Your task to perform on an android device: turn off javascript in the chrome app Image 0: 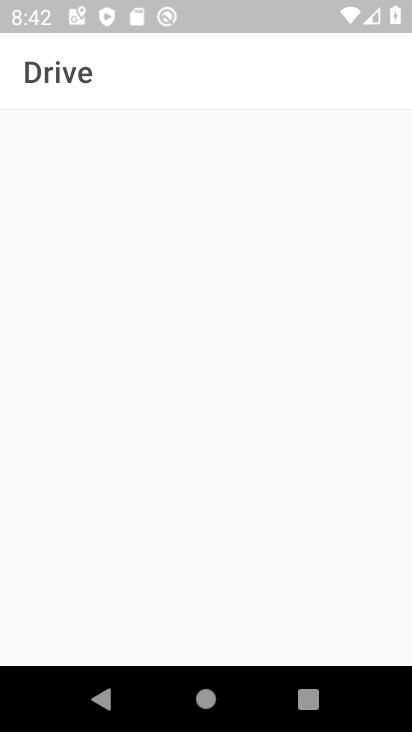
Step 0: press home button
Your task to perform on an android device: turn off javascript in the chrome app Image 1: 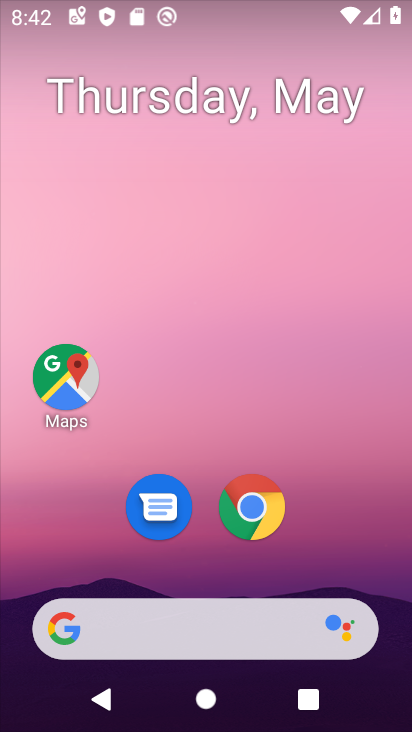
Step 1: drag from (396, 574) to (369, 170)
Your task to perform on an android device: turn off javascript in the chrome app Image 2: 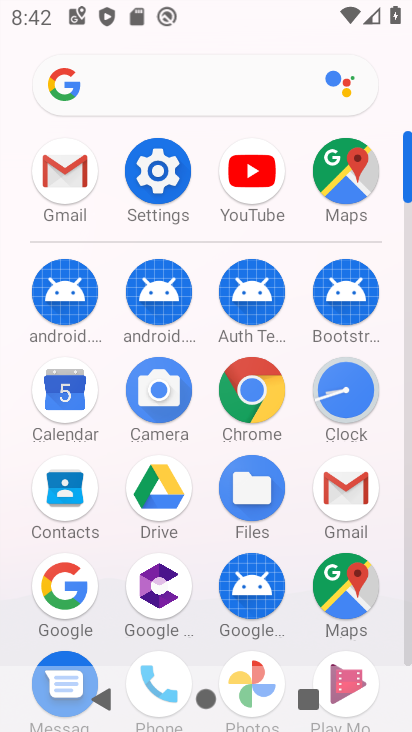
Step 2: click (259, 381)
Your task to perform on an android device: turn off javascript in the chrome app Image 3: 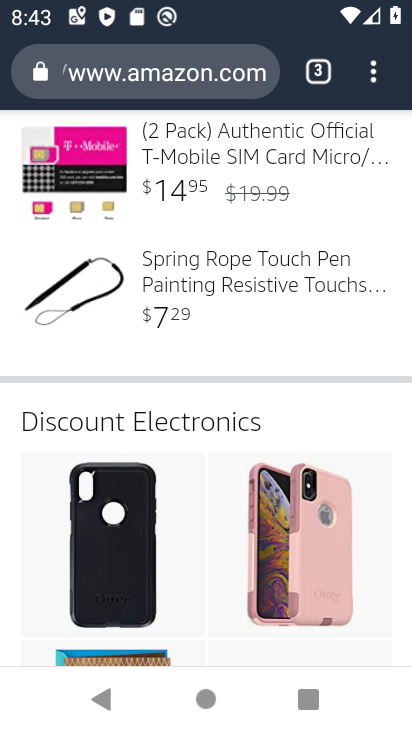
Step 3: press home button
Your task to perform on an android device: turn off javascript in the chrome app Image 4: 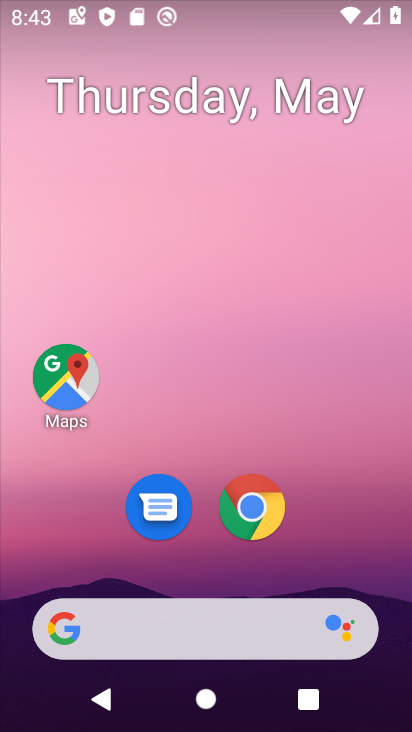
Step 4: drag from (363, 566) to (370, 107)
Your task to perform on an android device: turn off javascript in the chrome app Image 5: 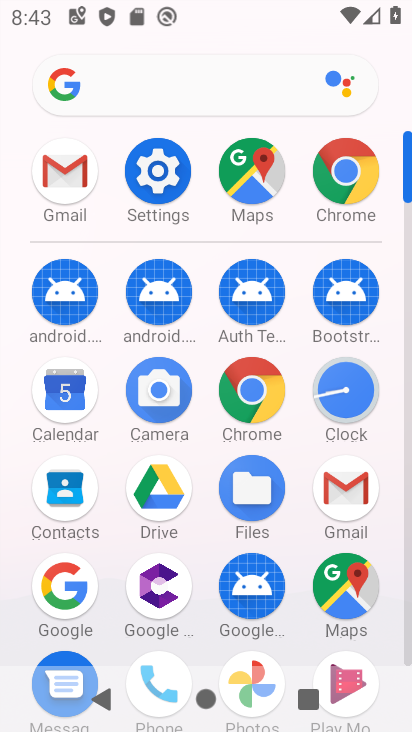
Step 5: click (353, 196)
Your task to perform on an android device: turn off javascript in the chrome app Image 6: 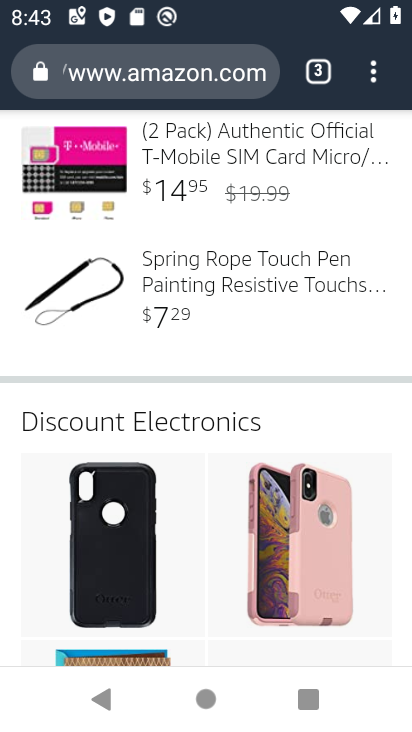
Step 6: drag from (376, 77) to (166, 502)
Your task to perform on an android device: turn off javascript in the chrome app Image 7: 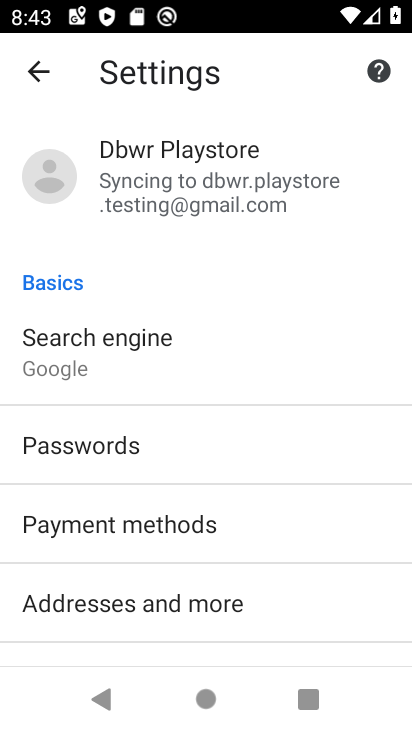
Step 7: drag from (286, 551) to (304, 195)
Your task to perform on an android device: turn off javascript in the chrome app Image 8: 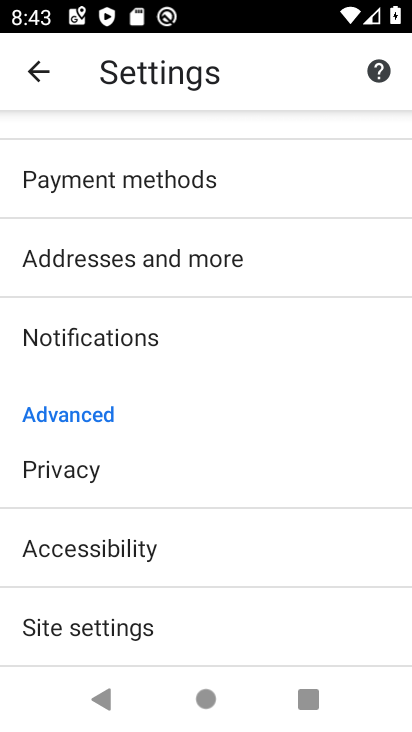
Step 8: drag from (233, 609) to (275, 216)
Your task to perform on an android device: turn off javascript in the chrome app Image 9: 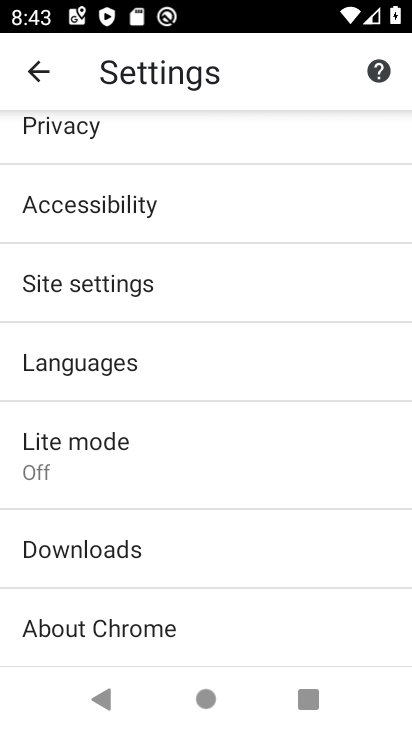
Step 9: drag from (238, 665) to (265, 234)
Your task to perform on an android device: turn off javascript in the chrome app Image 10: 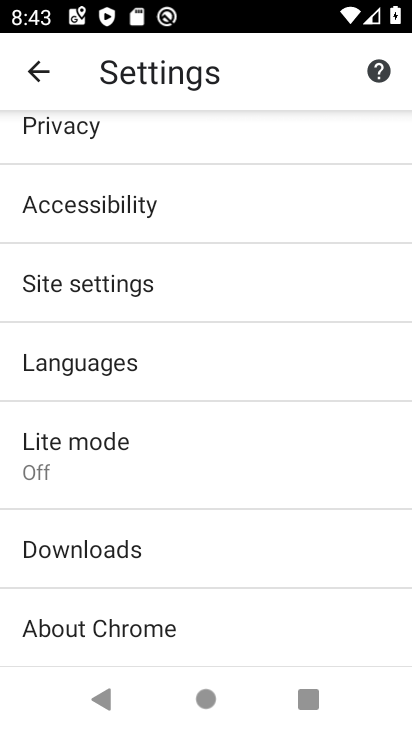
Step 10: click (123, 278)
Your task to perform on an android device: turn off javascript in the chrome app Image 11: 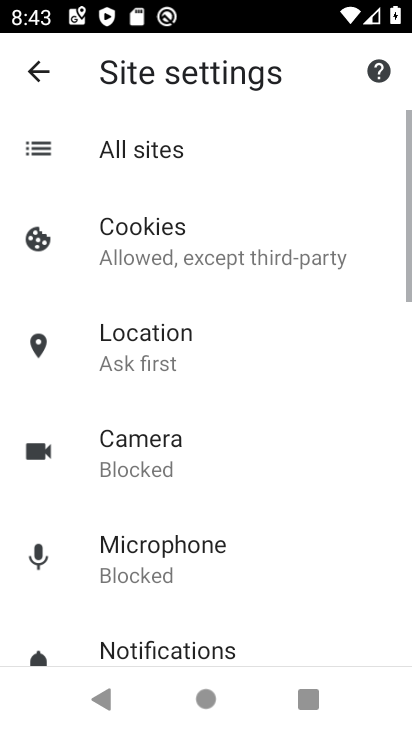
Step 11: drag from (245, 587) to (293, 127)
Your task to perform on an android device: turn off javascript in the chrome app Image 12: 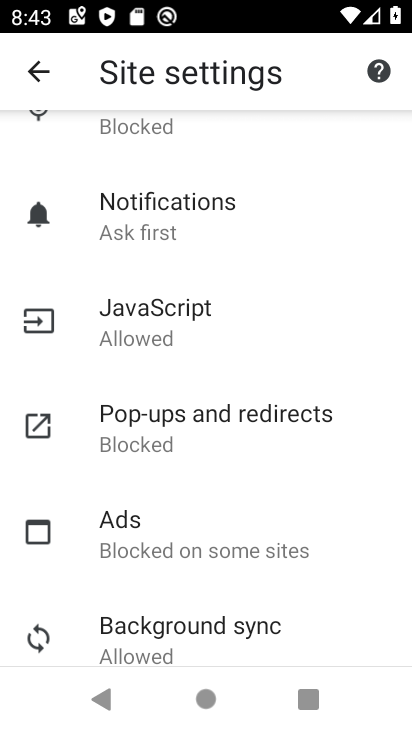
Step 12: click (214, 302)
Your task to perform on an android device: turn off javascript in the chrome app Image 13: 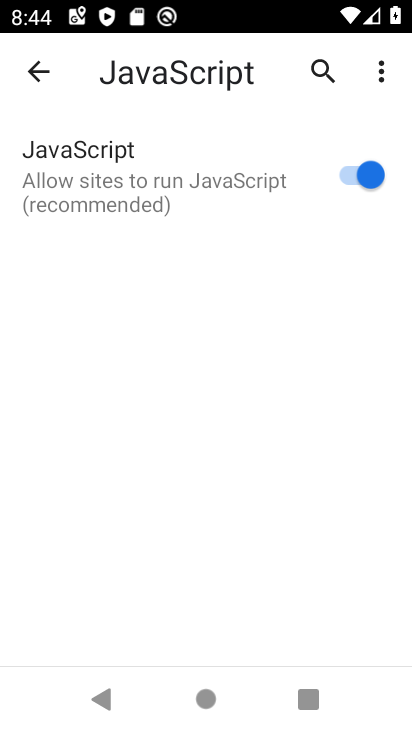
Step 13: click (342, 176)
Your task to perform on an android device: turn off javascript in the chrome app Image 14: 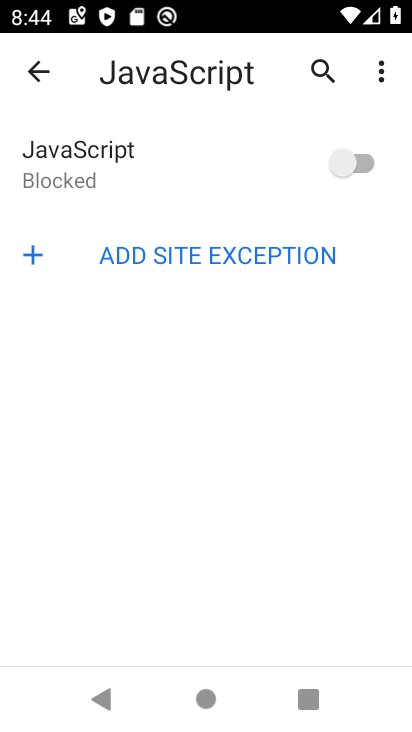
Step 14: task complete